Your task to perform on an android device: set an alarm Image 0: 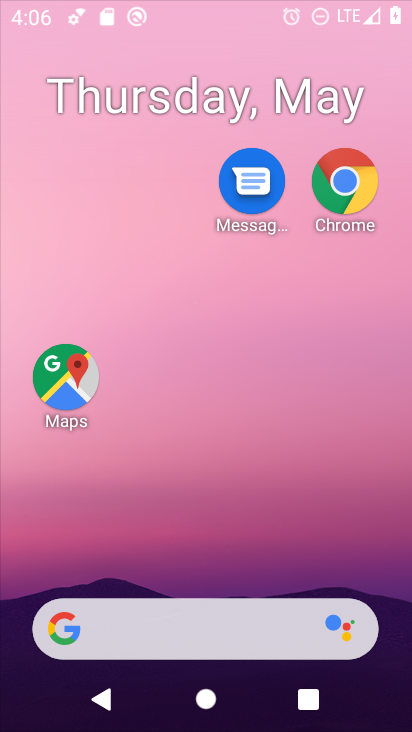
Step 0: drag from (324, 582) to (300, 38)
Your task to perform on an android device: set an alarm Image 1: 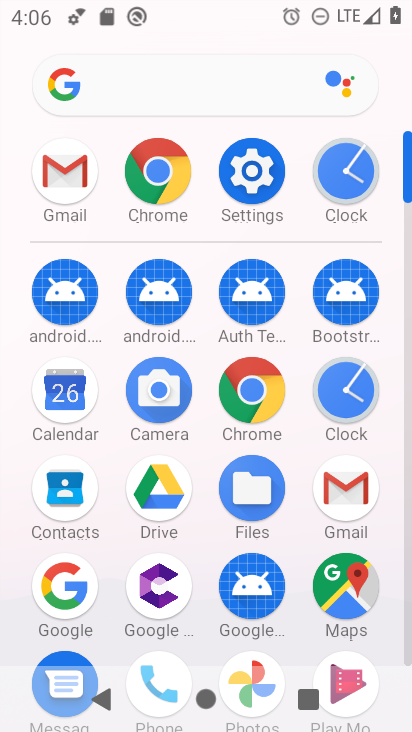
Step 1: click (343, 393)
Your task to perform on an android device: set an alarm Image 2: 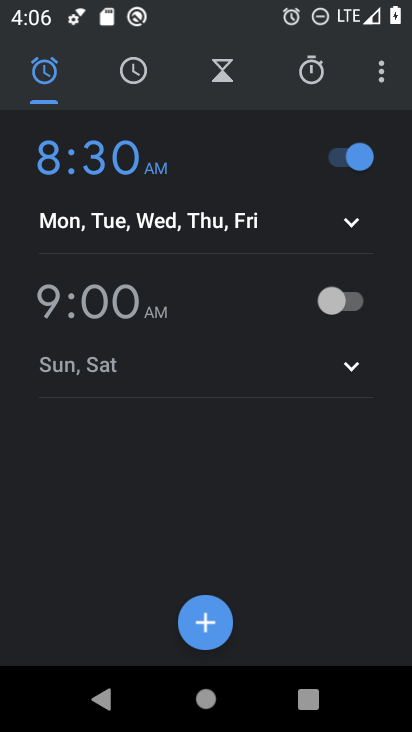
Step 2: task complete